Your task to perform on an android device: Go to Google maps Image 0: 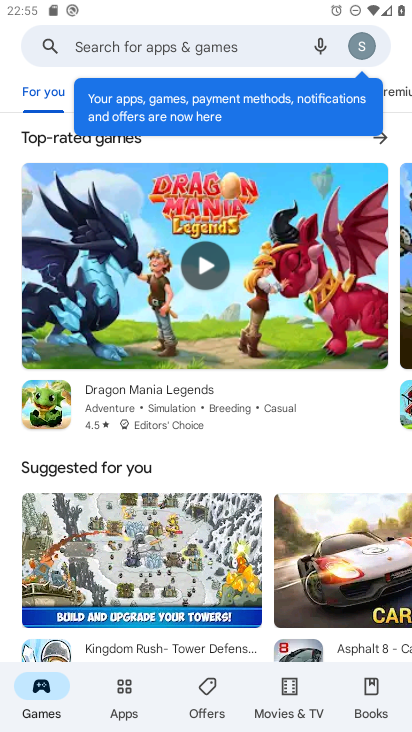
Step 0: press home button
Your task to perform on an android device: Go to Google maps Image 1: 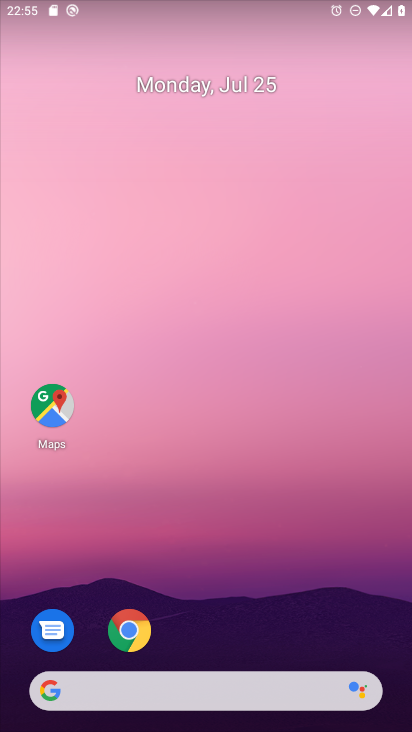
Step 1: drag from (324, 563) to (258, 33)
Your task to perform on an android device: Go to Google maps Image 2: 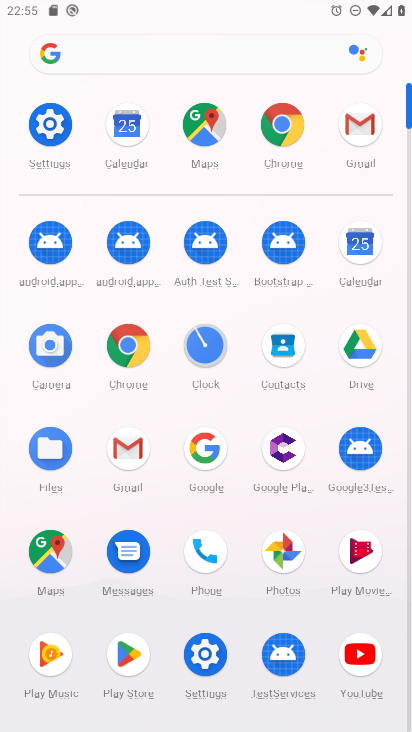
Step 2: click (43, 549)
Your task to perform on an android device: Go to Google maps Image 3: 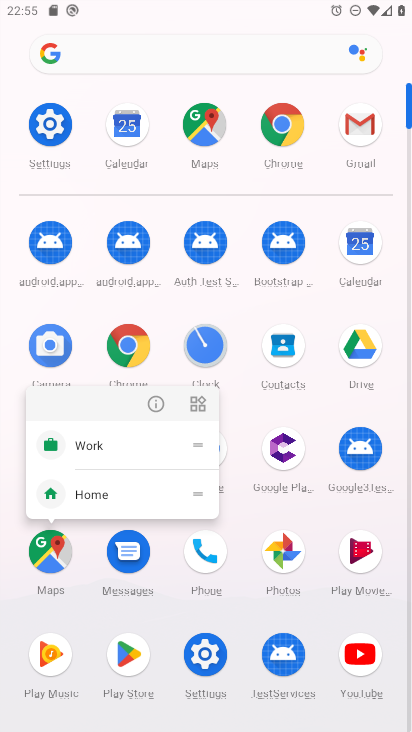
Step 3: click (48, 551)
Your task to perform on an android device: Go to Google maps Image 4: 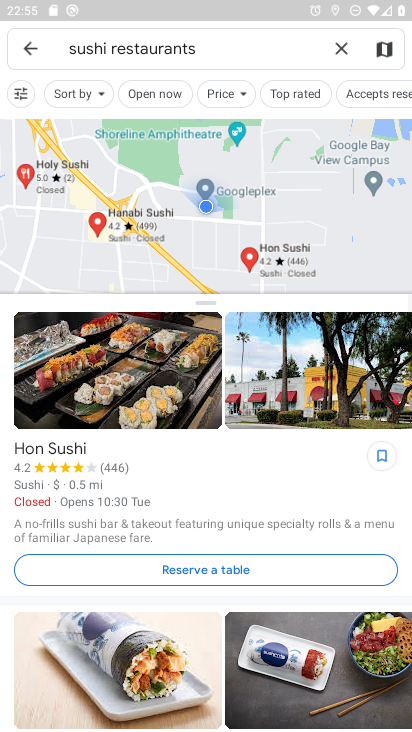
Step 4: task complete